Your task to perform on an android device: turn off improve location accuracy Image 0: 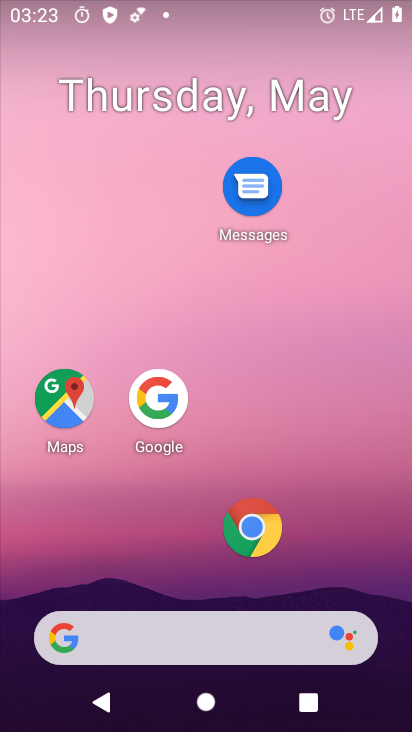
Step 0: drag from (194, 543) to (260, 80)
Your task to perform on an android device: turn off improve location accuracy Image 1: 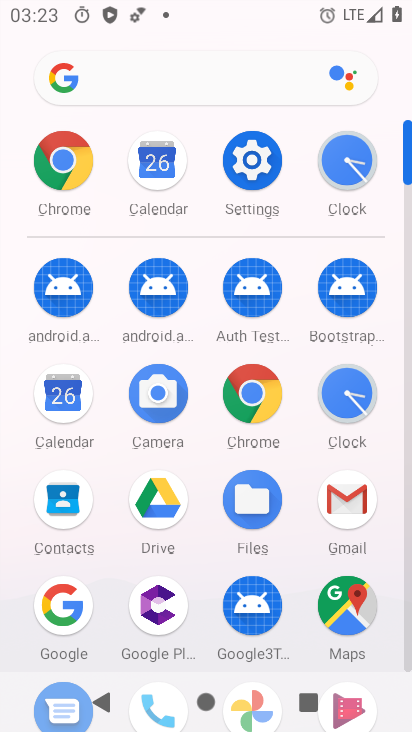
Step 1: click (257, 149)
Your task to perform on an android device: turn off improve location accuracy Image 2: 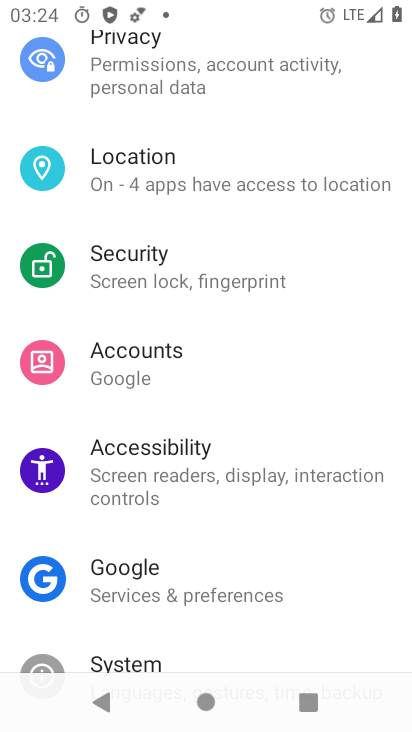
Step 2: click (215, 178)
Your task to perform on an android device: turn off improve location accuracy Image 3: 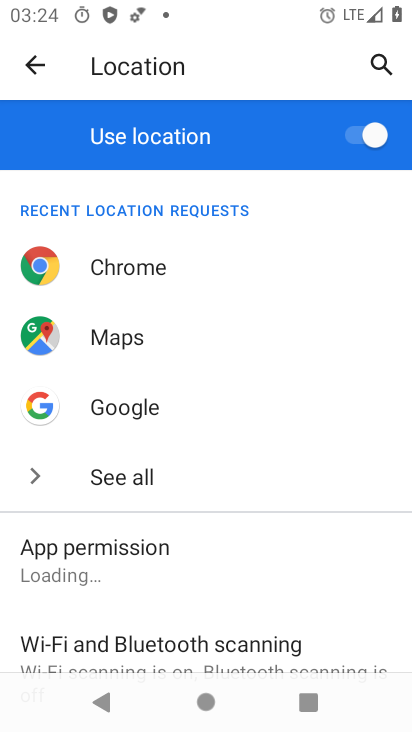
Step 3: drag from (195, 550) to (272, 133)
Your task to perform on an android device: turn off improve location accuracy Image 4: 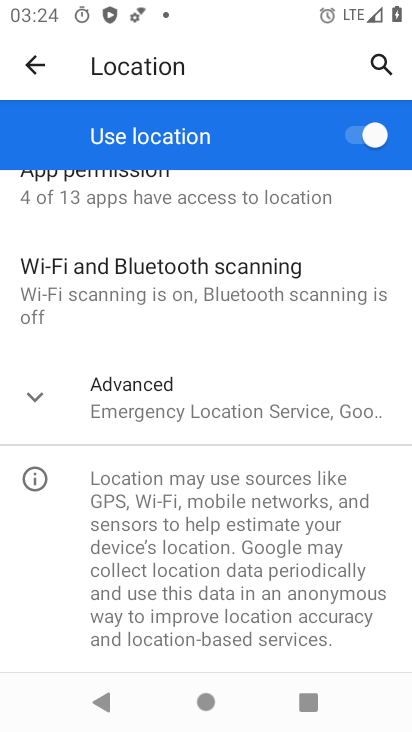
Step 4: click (145, 412)
Your task to perform on an android device: turn off improve location accuracy Image 5: 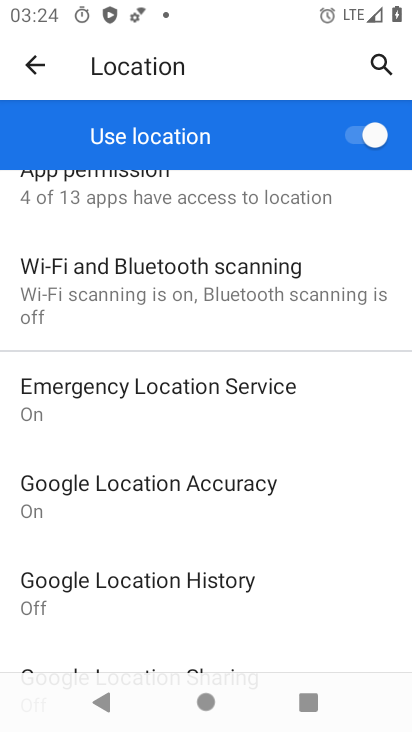
Step 5: drag from (201, 558) to (260, 301)
Your task to perform on an android device: turn off improve location accuracy Image 6: 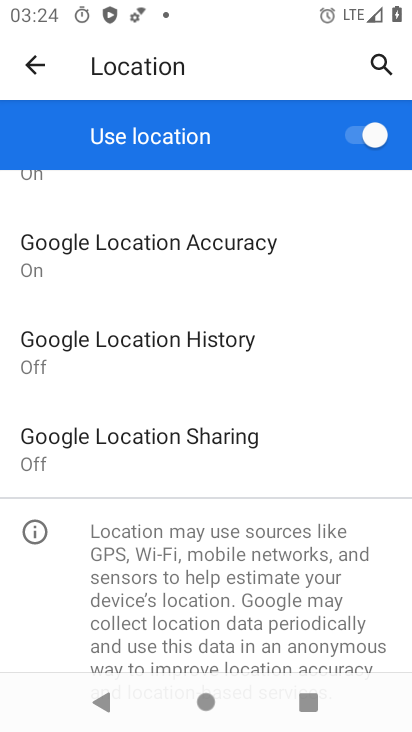
Step 6: click (185, 258)
Your task to perform on an android device: turn off improve location accuracy Image 7: 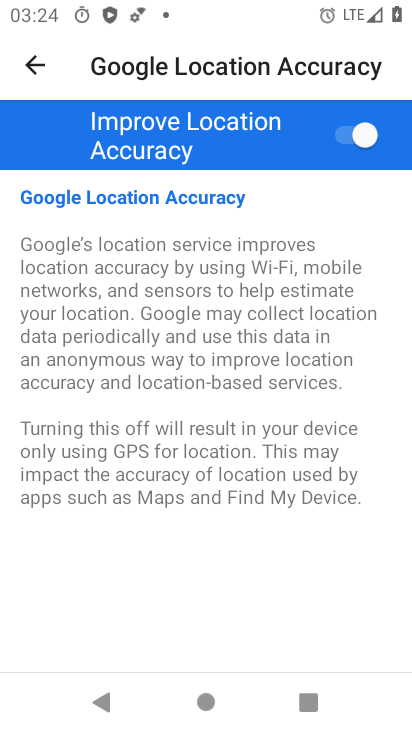
Step 7: click (348, 136)
Your task to perform on an android device: turn off improve location accuracy Image 8: 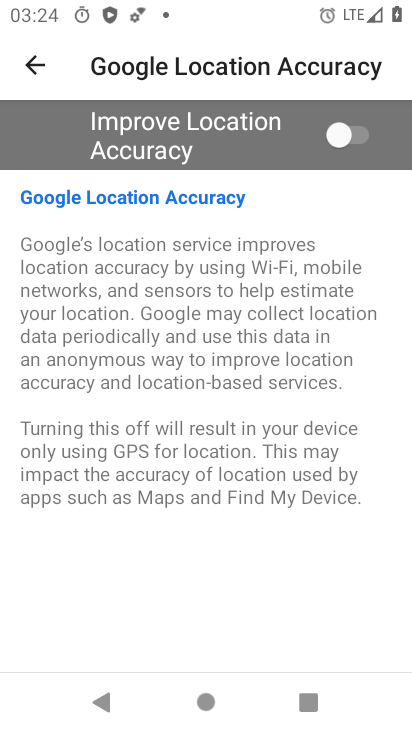
Step 8: task complete